Your task to perform on an android device: turn smart compose on in the gmail app Image 0: 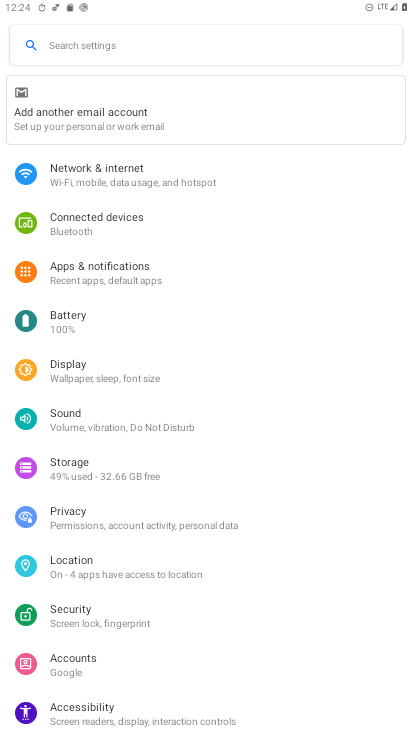
Step 0: press home button
Your task to perform on an android device: turn smart compose on in the gmail app Image 1: 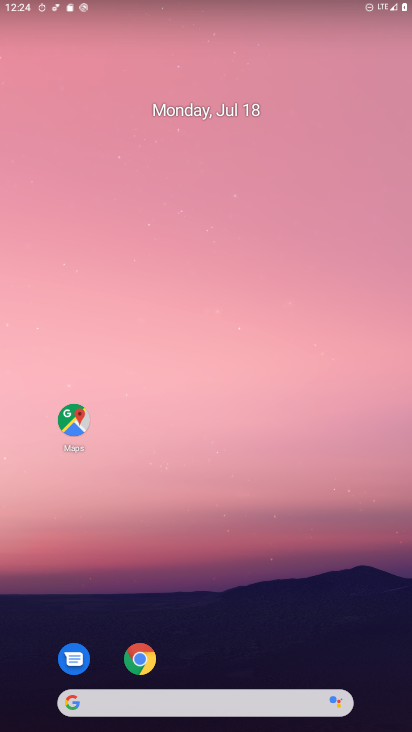
Step 1: drag from (220, 623) to (375, 333)
Your task to perform on an android device: turn smart compose on in the gmail app Image 2: 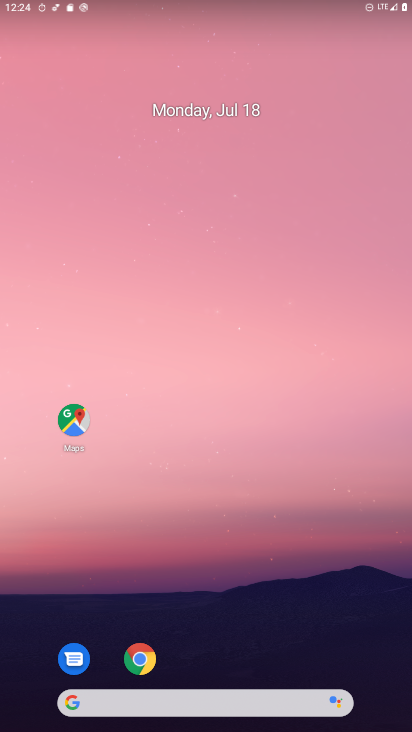
Step 2: drag from (221, 553) to (167, 12)
Your task to perform on an android device: turn smart compose on in the gmail app Image 3: 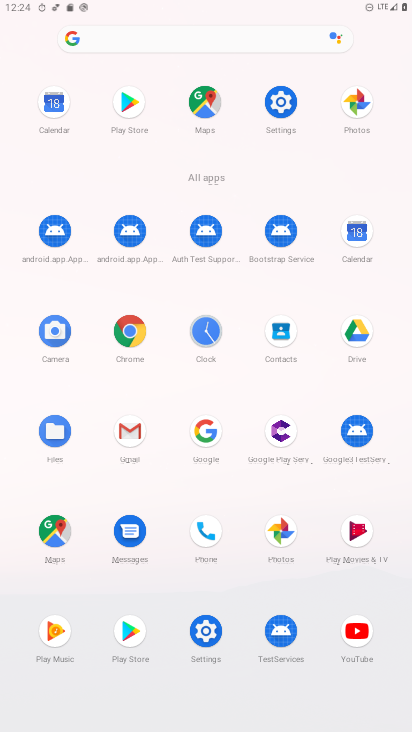
Step 3: click (143, 437)
Your task to perform on an android device: turn smart compose on in the gmail app Image 4: 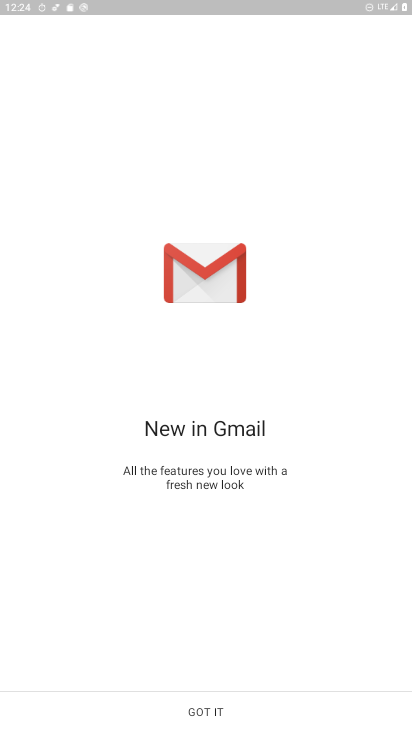
Step 4: click (218, 706)
Your task to perform on an android device: turn smart compose on in the gmail app Image 5: 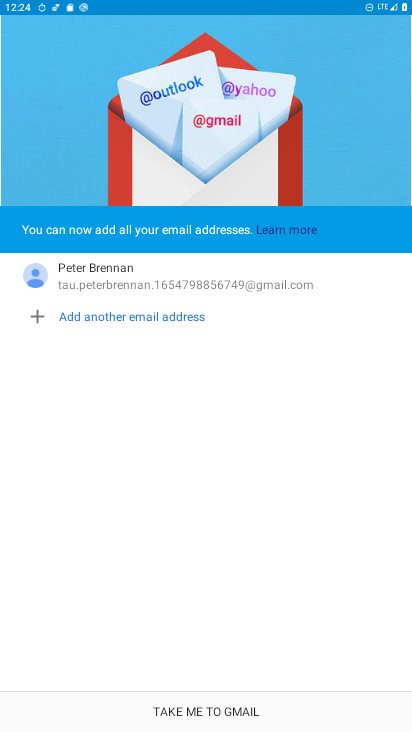
Step 5: click (225, 708)
Your task to perform on an android device: turn smart compose on in the gmail app Image 6: 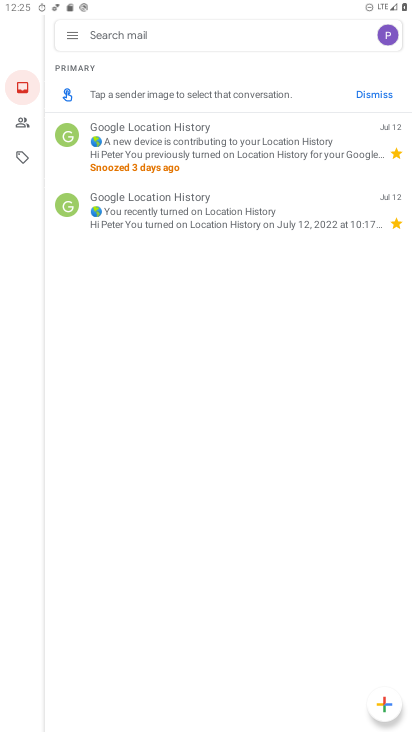
Step 6: click (66, 39)
Your task to perform on an android device: turn smart compose on in the gmail app Image 7: 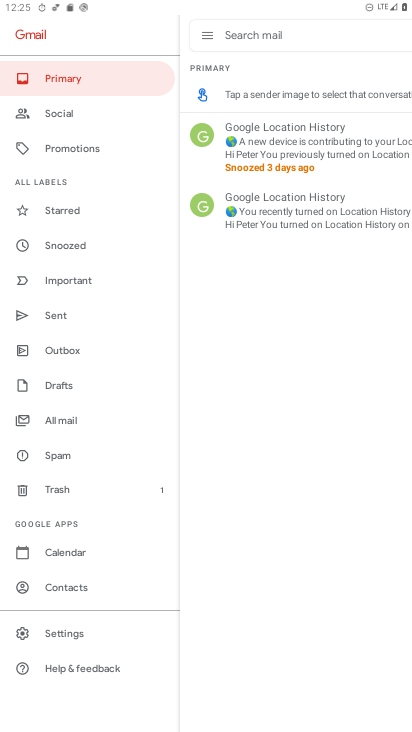
Step 7: click (65, 633)
Your task to perform on an android device: turn smart compose on in the gmail app Image 8: 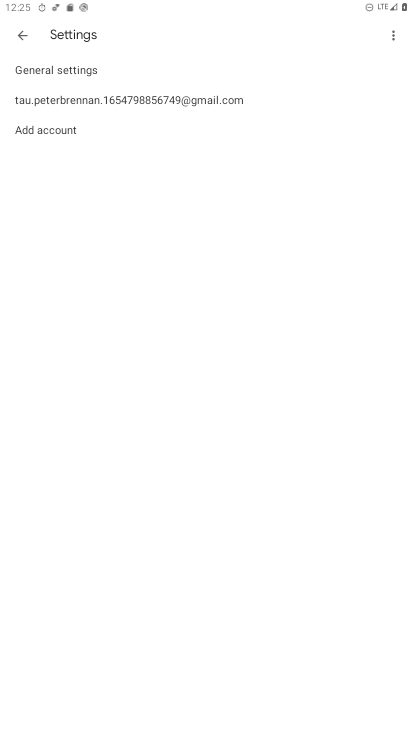
Step 8: click (94, 97)
Your task to perform on an android device: turn smart compose on in the gmail app Image 9: 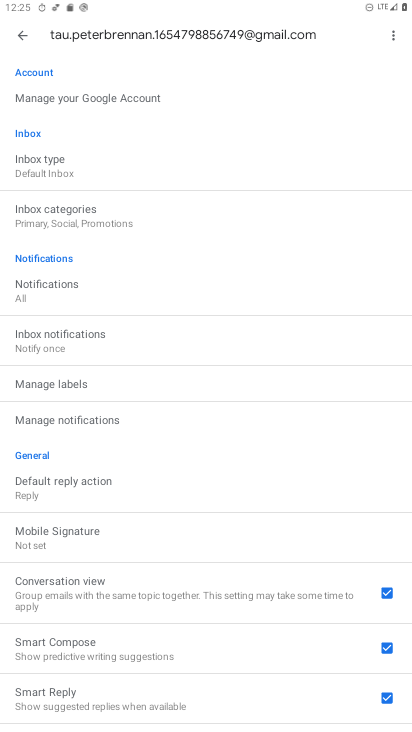
Step 9: task complete